Your task to perform on an android device: Go to Google Image 0: 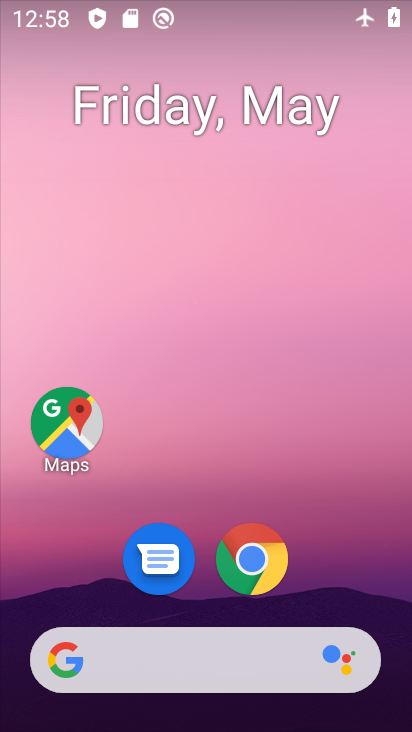
Step 0: drag from (335, 546) to (291, 48)
Your task to perform on an android device: Go to Google Image 1: 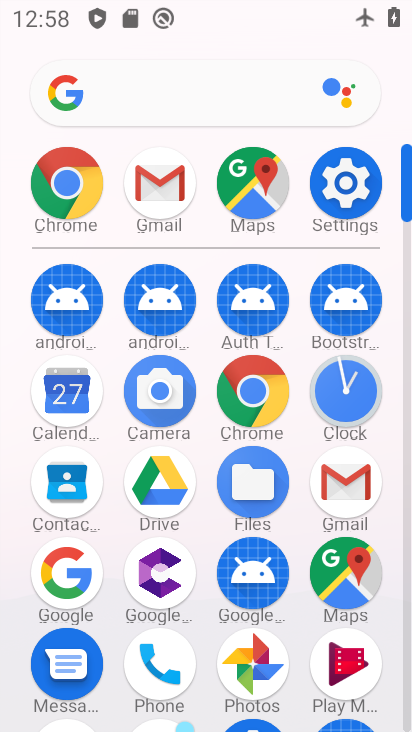
Step 1: click (86, 579)
Your task to perform on an android device: Go to Google Image 2: 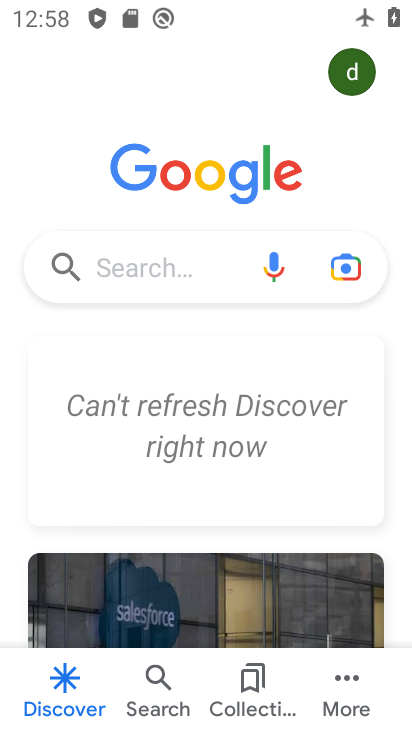
Step 2: task complete